Your task to perform on an android device: Open Youtube and go to "Your channel" Image 0: 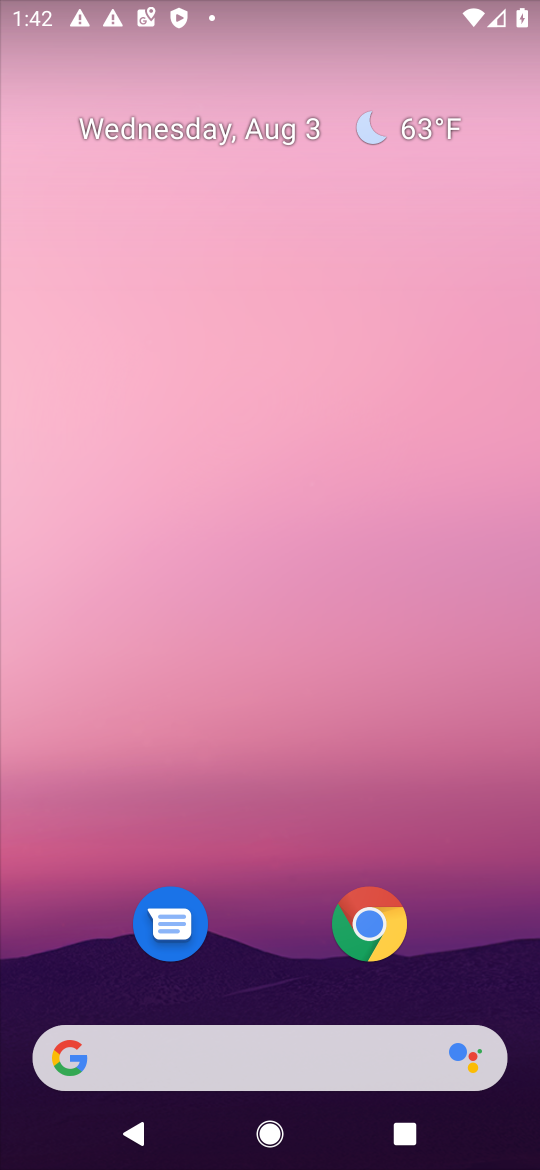
Step 0: drag from (266, 1000) to (281, 18)
Your task to perform on an android device: Open Youtube and go to "Your channel" Image 1: 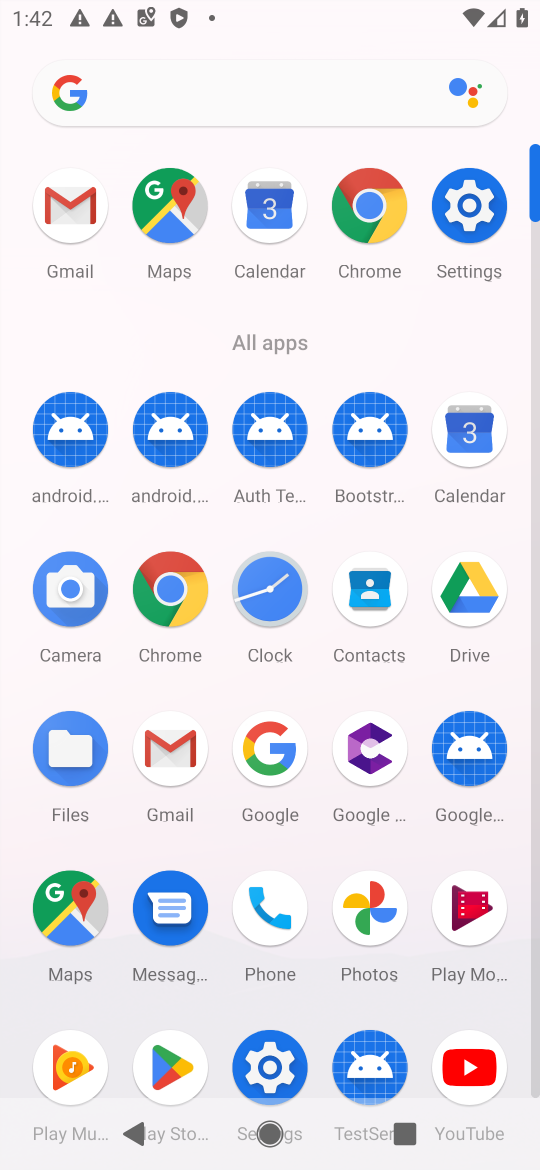
Step 1: click (469, 1059)
Your task to perform on an android device: Open Youtube and go to "Your channel" Image 2: 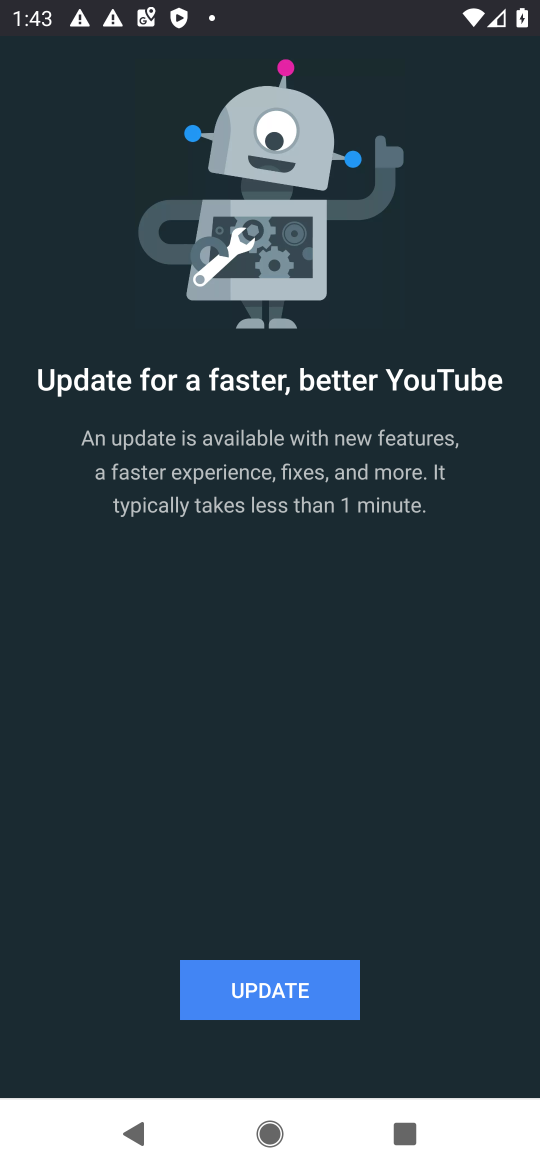
Step 2: click (263, 991)
Your task to perform on an android device: Open Youtube and go to "Your channel" Image 3: 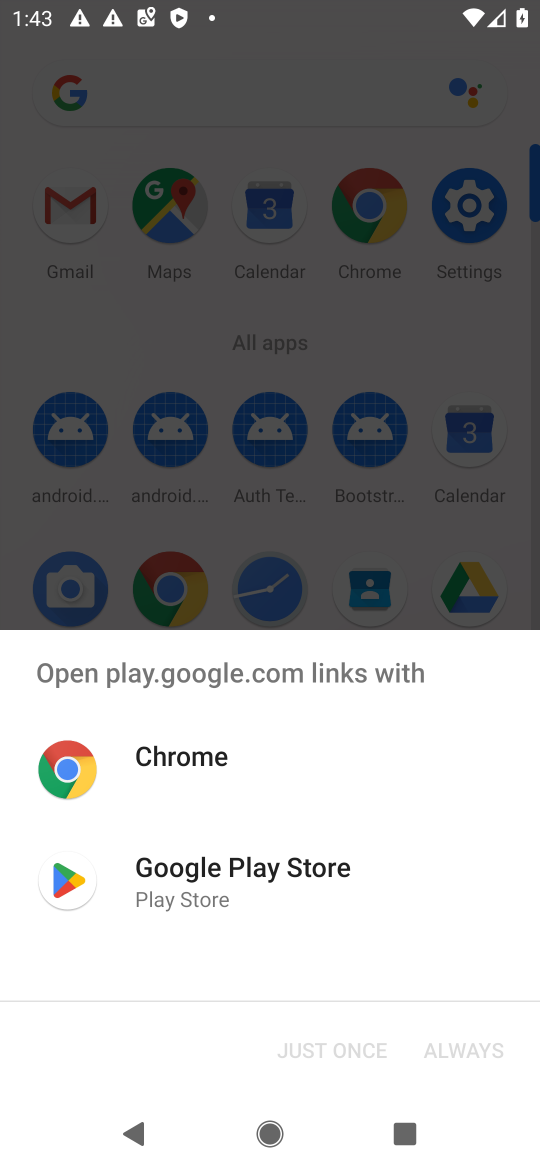
Step 3: click (201, 876)
Your task to perform on an android device: Open Youtube and go to "Your channel" Image 4: 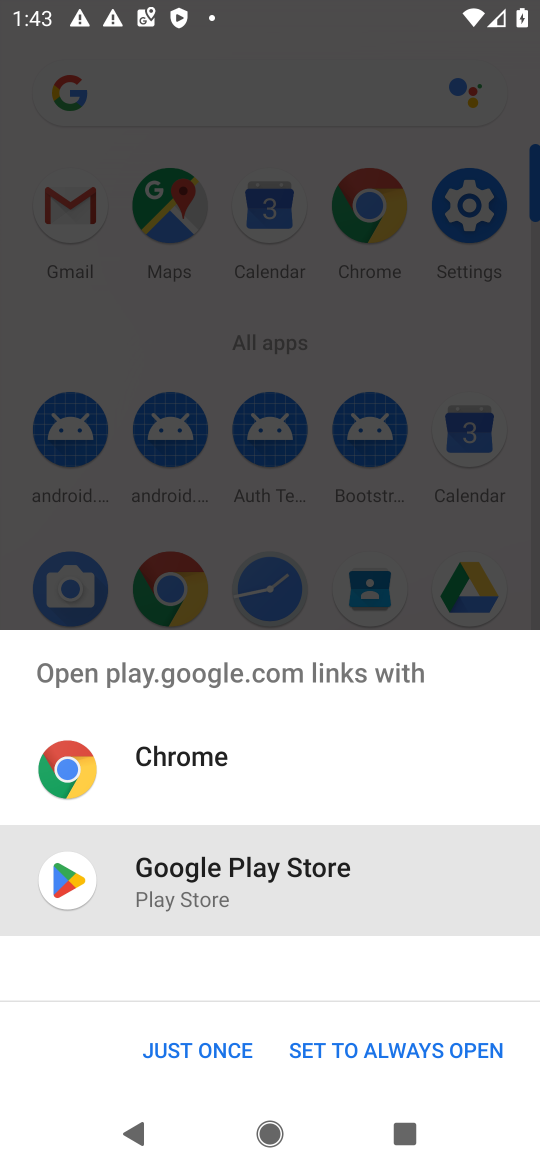
Step 4: click (223, 1034)
Your task to perform on an android device: Open Youtube and go to "Your channel" Image 5: 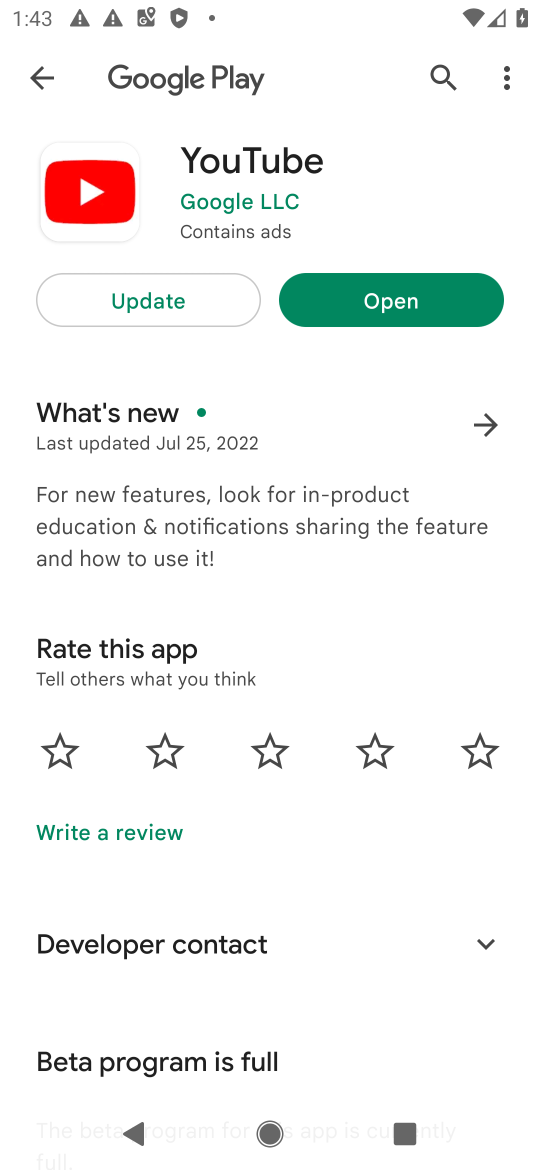
Step 5: click (152, 297)
Your task to perform on an android device: Open Youtube and go to "Your channel" Image 6: 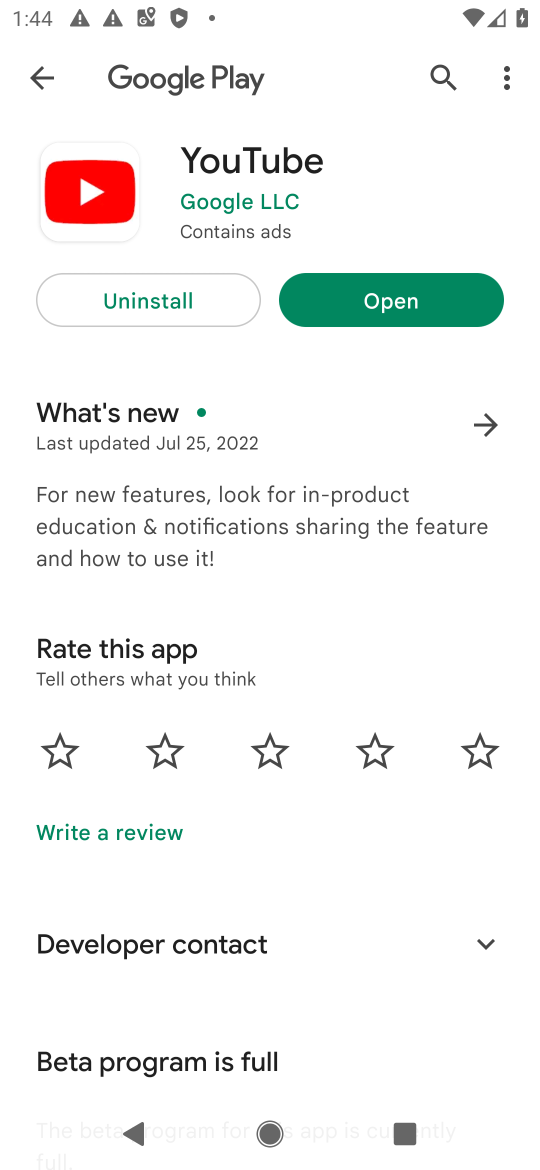
Step 6: click (385, 302)
Your task to perform on an android device: Open Youtube and go to "Your channel" Image 7: 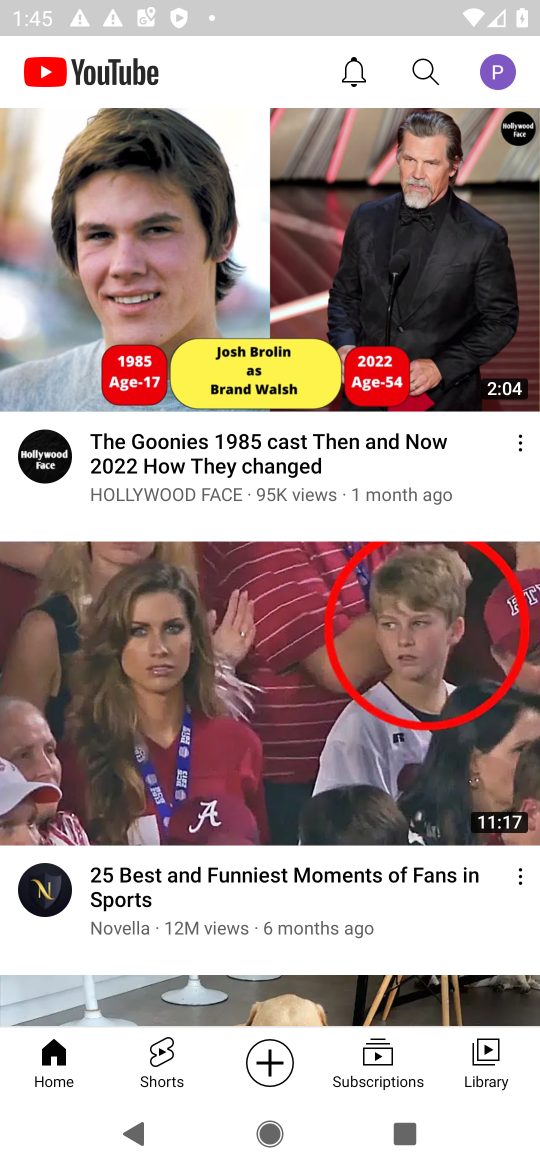
Step 7: click (488, 58)
Your task to perform on an android device: Open Youtube and go to "Your channel" Image 8: 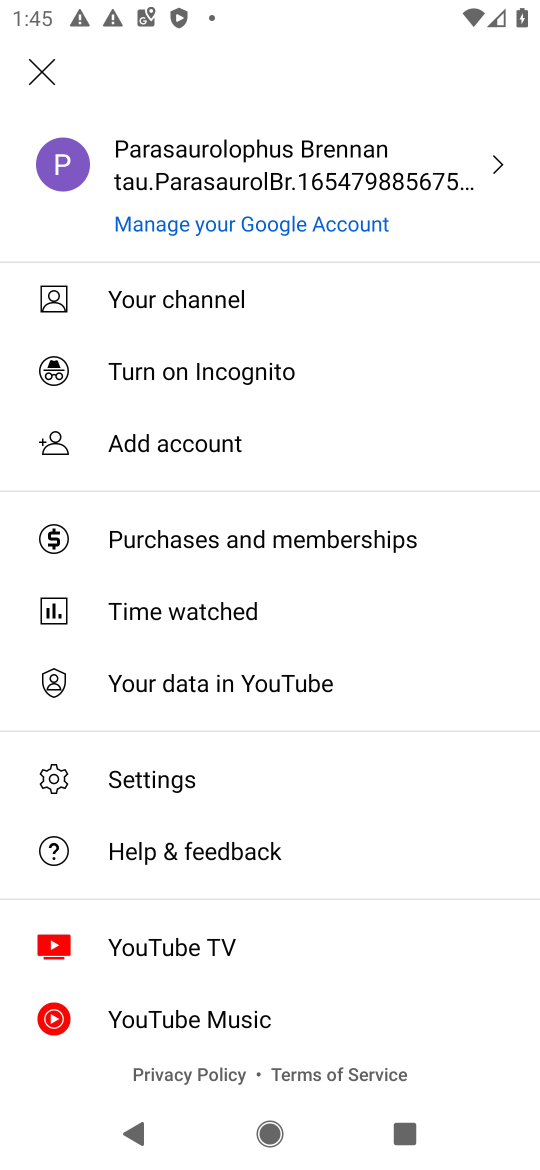
Step 8: click (212, 288)
Your task to perform on an android device: Open Youtube and go to "Your channel" Image 9: 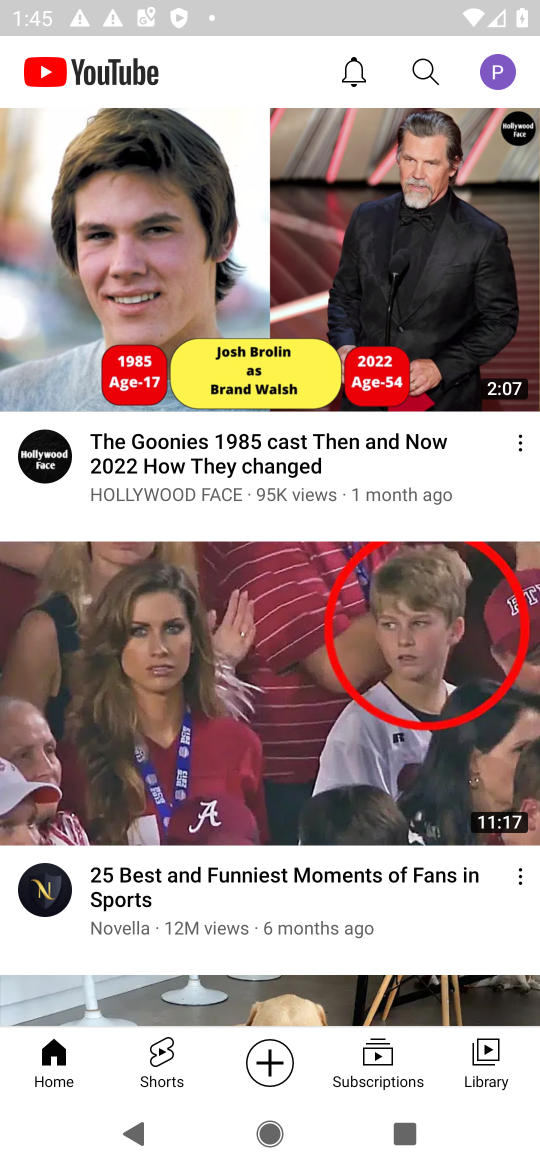
Step 9: click (493, 70)
Your task to perform on an android device: Open Youtube and go to "Your channel" Image 10: 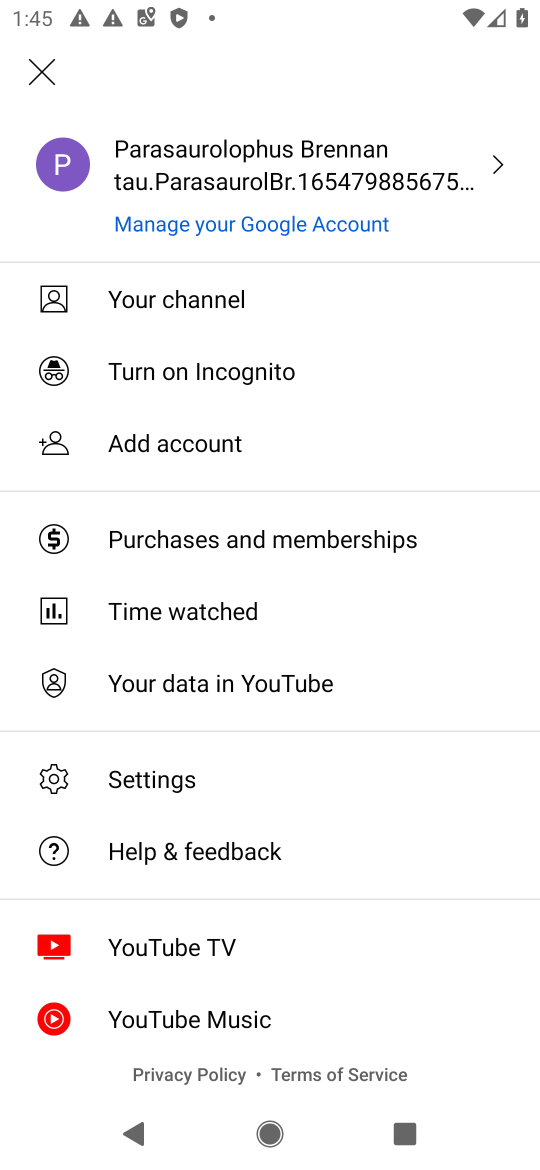
Step 10: click (206, 306)
Your task to perform on an android device: Open Youtube and go to "Your channel" Image 11: 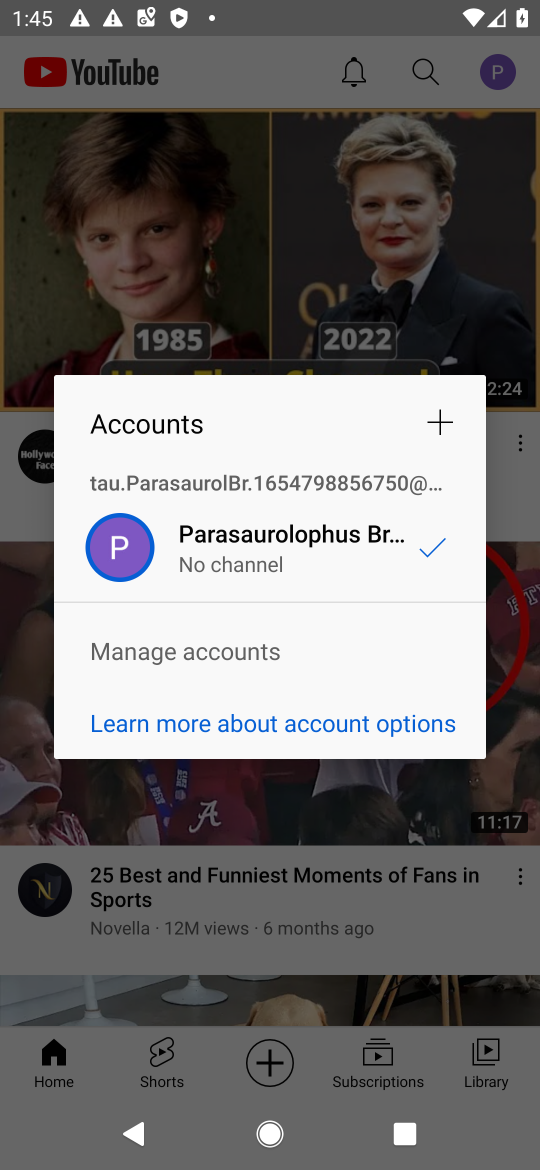
Step 11: click (213, 548)
Your task to perform on an android device: Open Youtube and go to "Your channel" Image 12: 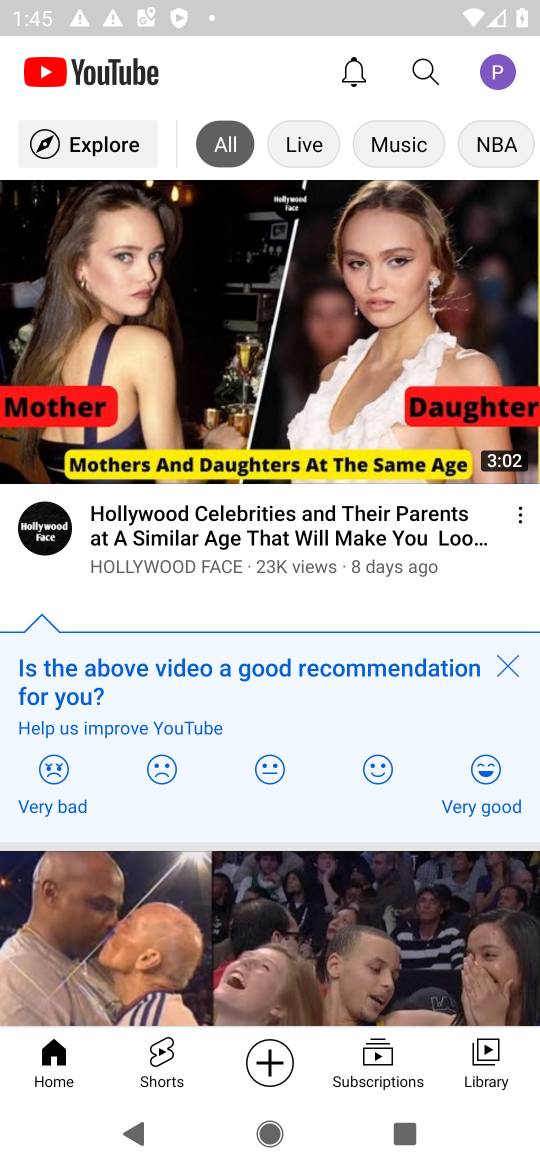
Step 12: task complete